Your task to perform on an android device: turn on translation in the chrome app Image 0: 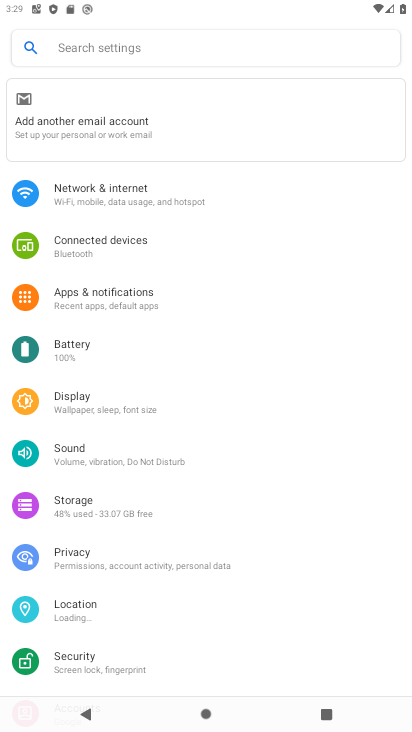
Step 0: press home button
Your task to perform on an android device: turn on translation in the chrome app Image 1: 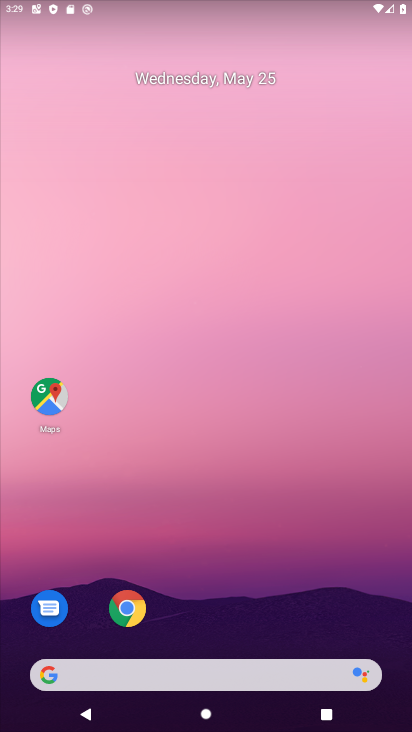
Step 1: click (147, 612)
Your task to perform on an android device: turn on translation in the chrome app Image 2: 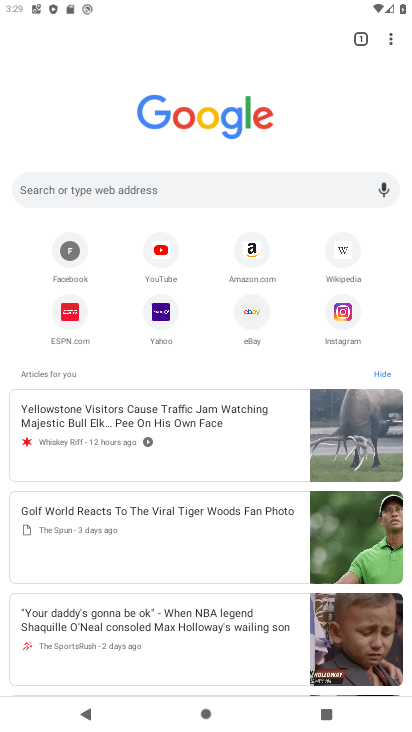
Step 2: click (399, 33)
Your task to perform on an android device: turn on translation in the chrome app Image 3: 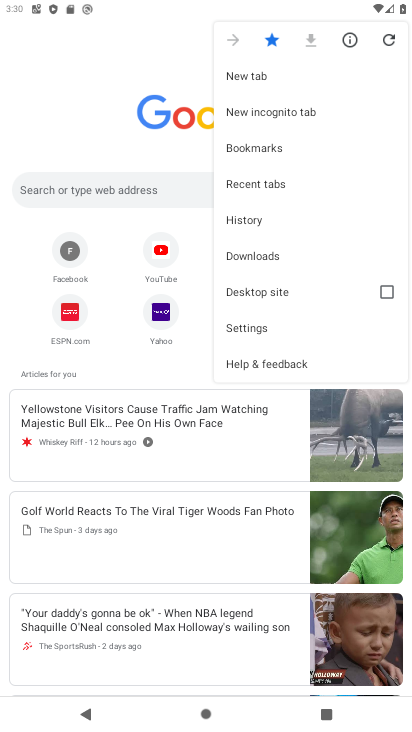
Step 3: click (249, 337)
Your task to perform on an android device: turn on translation in the chrome app Image 4: 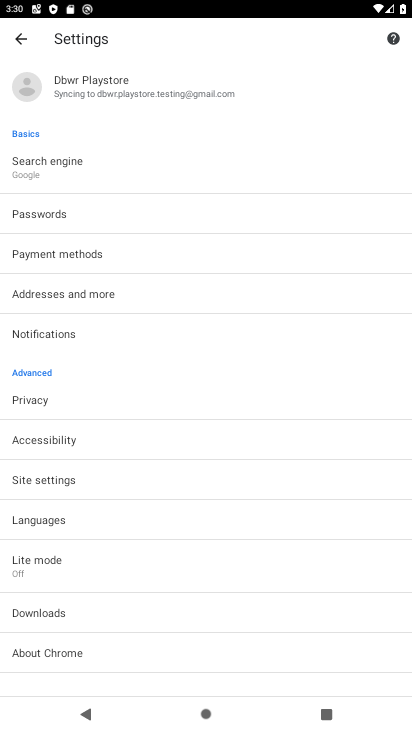
Step 4: click (52, 524)
Your task to perform on an android device: turn on translation in the chrome app Image 5: 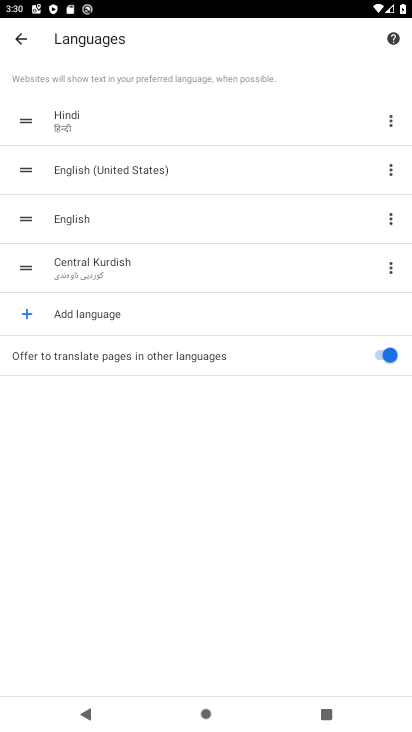
Step 5: task complete